Your task to perform on an android device: Search for flights from Chicago to London Image 0: 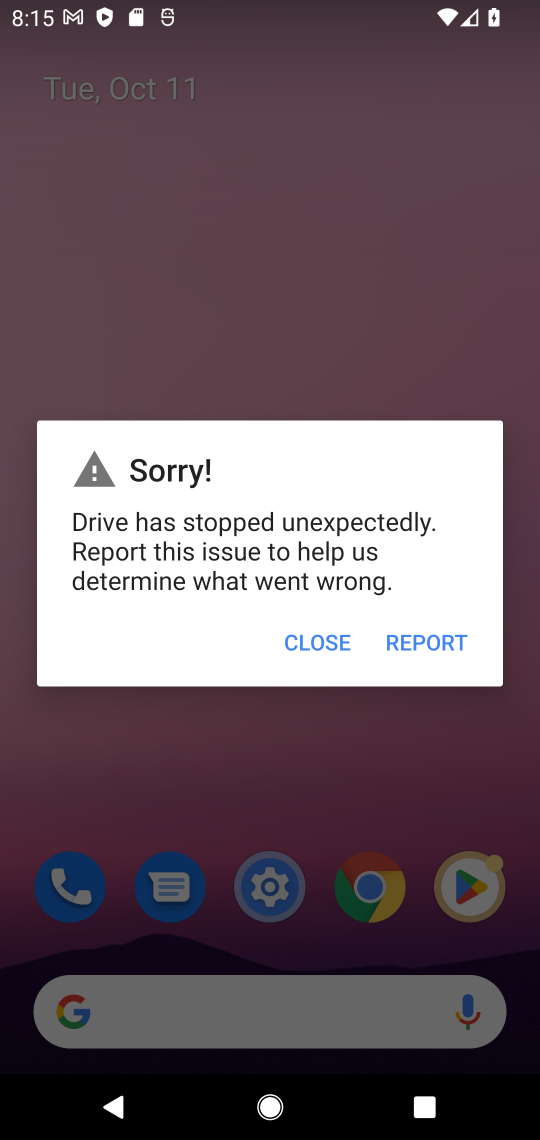
Step 0: press home button
Your task to perform on an android device: Search for flights from Chicago to London Image 1: 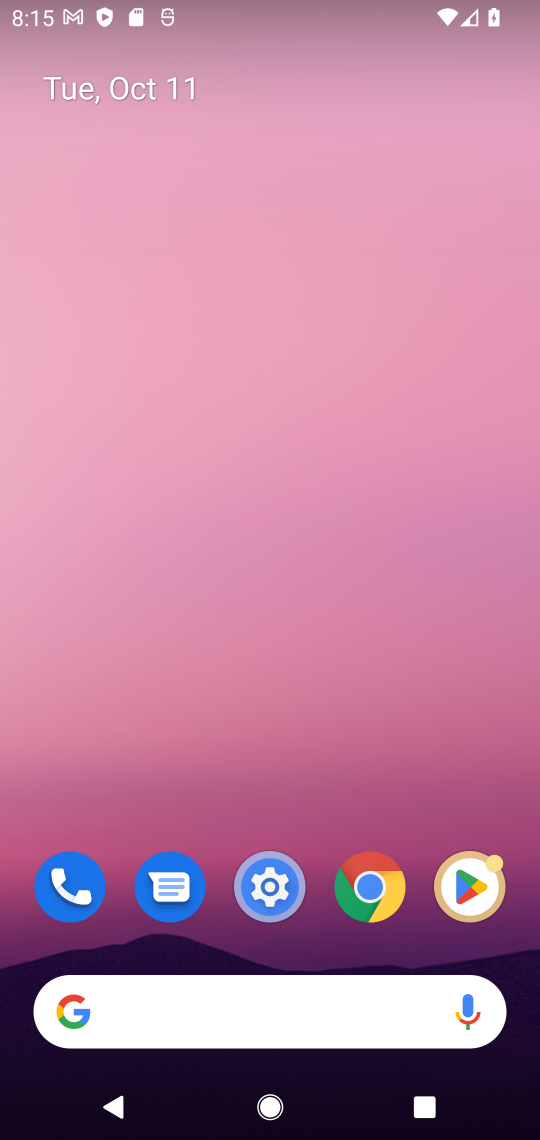
Step 1: click (369, 880)
Your task to perform on an android device: Search for flights from Chicago to London Image 2: 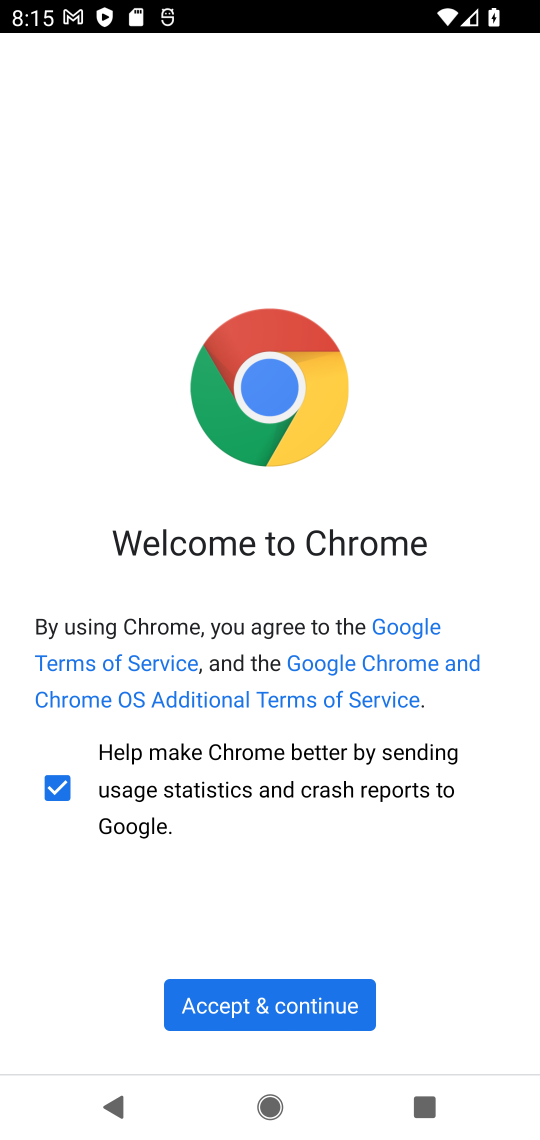
Step 2: click (245, 1005)
Your task to perform on an android device: Search for flights from Chicago to London Image 3: 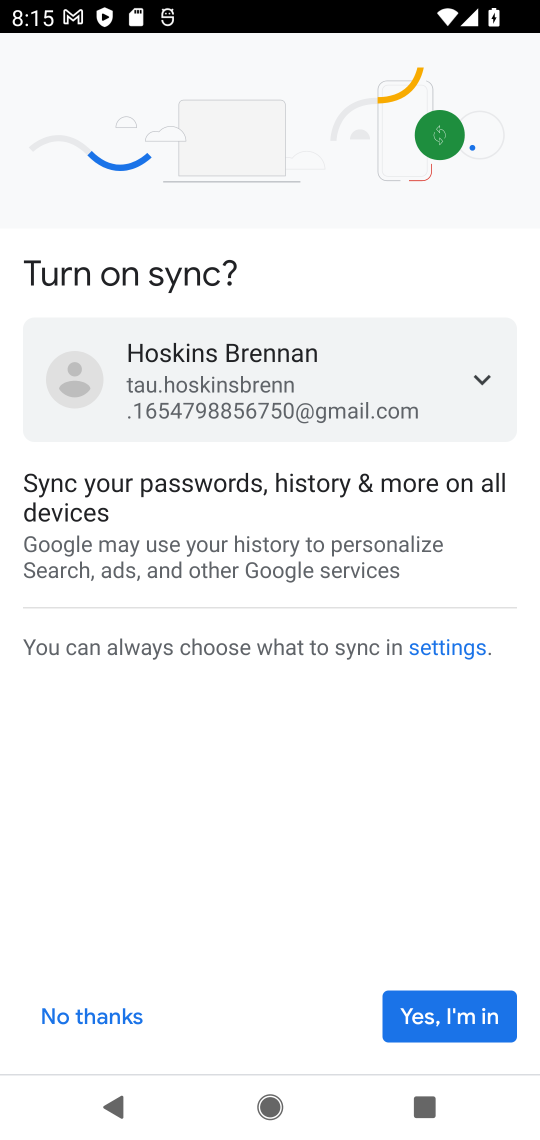
Step 3: click (424, 1004)
Your task to perform on an android device: Search for flights from Chicago to London Image 4: 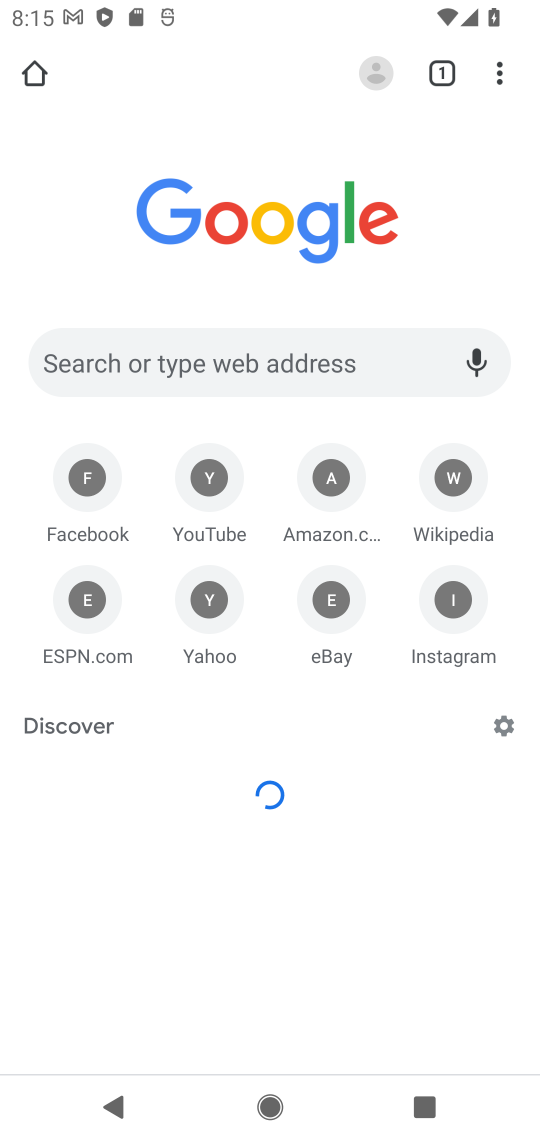
Step 4: click (322, 360)
Your task to perform on an android device: Search for flights from Chicago to London Image 5: 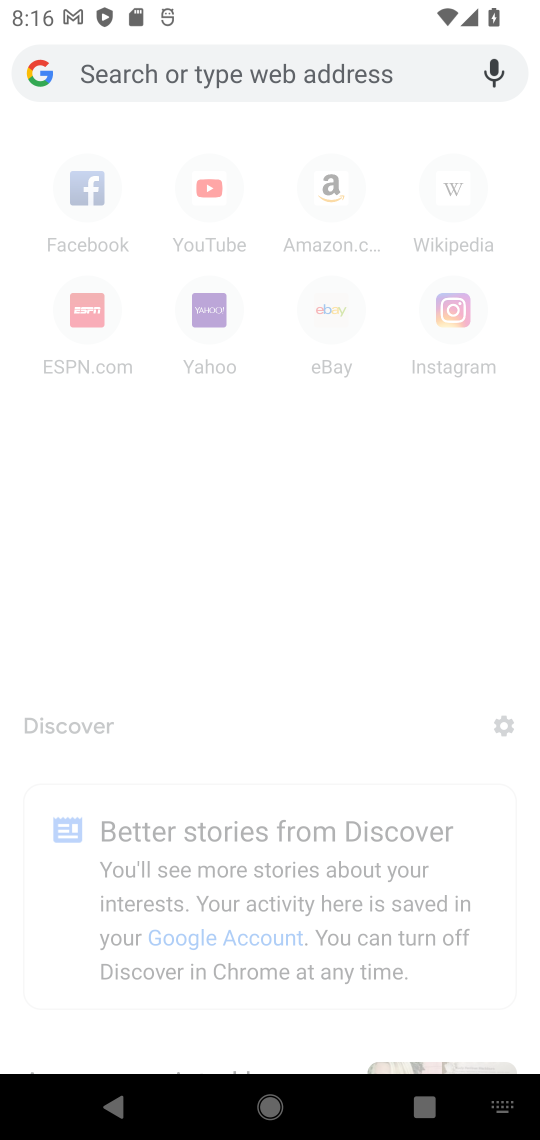
Step 5: type "Chicago to London flights"
Your task to perform on an android device: Search for flights from Chicago to London Image 6: 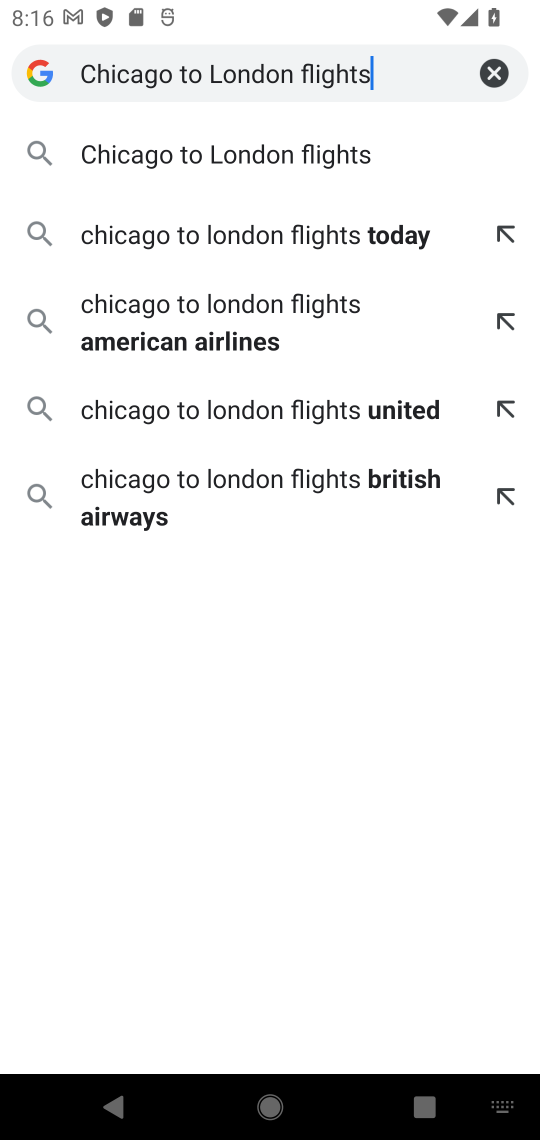
Step 6: click (358, 148)
Your task to perform on an android device: Search for flights from Chicago to London Image 7: 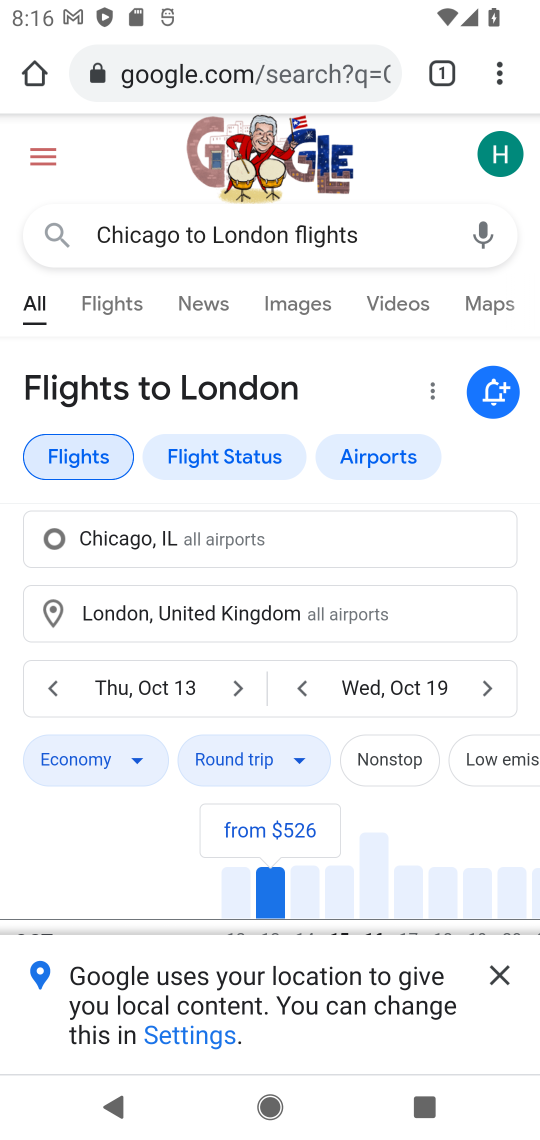
Step 7: click (109, 296)
Your task to perform on an android device: Search for flights from Chicago to London Image 8: 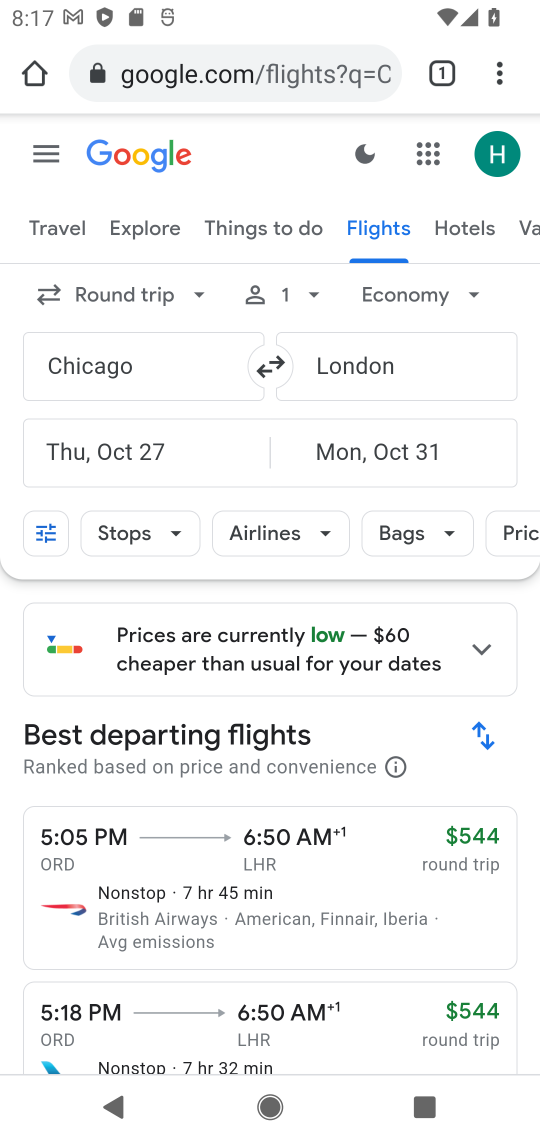
Step 8: task complete